Your task to perform on an android device: visit the assistant section in the google photos Image 0: 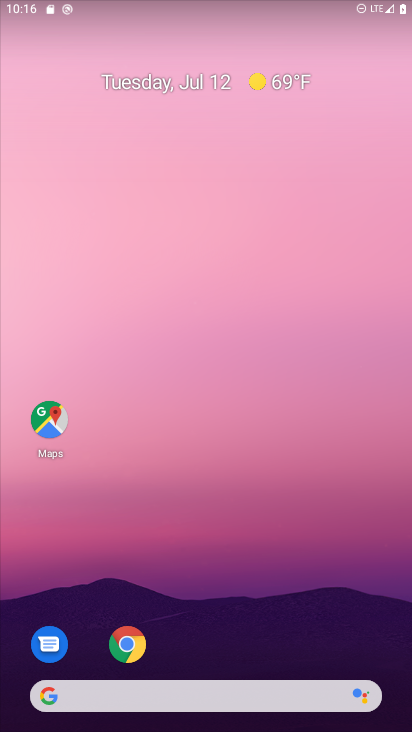
Step 0: press home button
Your task to perform on an android device: visit the assistant section in the google photos Image 1: 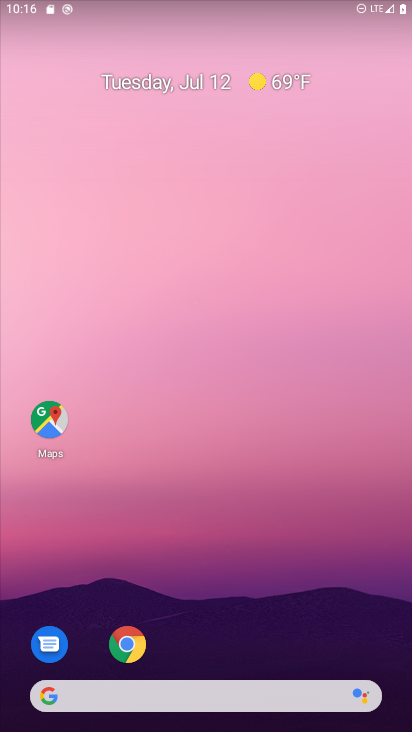
Step 1: drag from (198, 665) to (241, 34)
Your task to perform on an android device: visit the assistant section in the google photos Image 2: 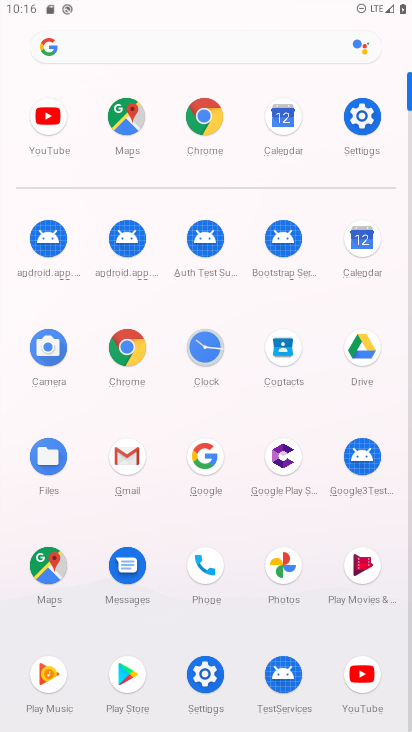
Step 2: click (279, 556)
Your task to perform on an android device: visit the assistant section in the google photos Image 3: 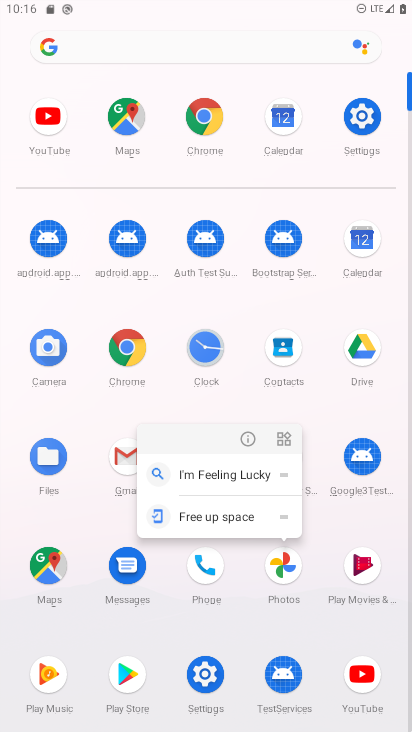
Step 3: click (282, 560)
Your task to perform on an android device: visit the assistant section in the google photos Image 4: 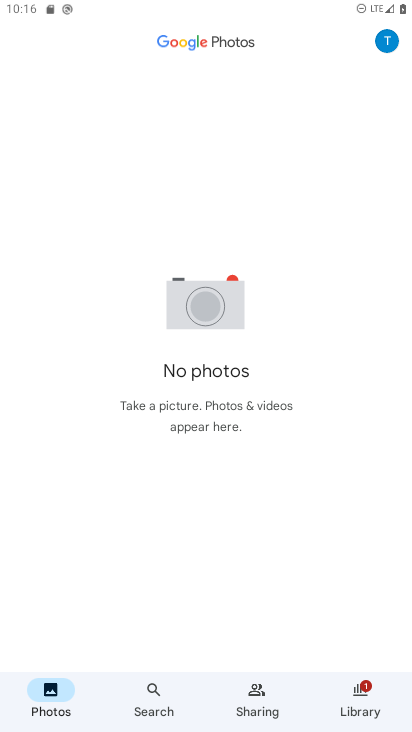
Step 4: click (145, 689)
Your task to perform on an android device: visit the assistant section in the google photos Image 5: 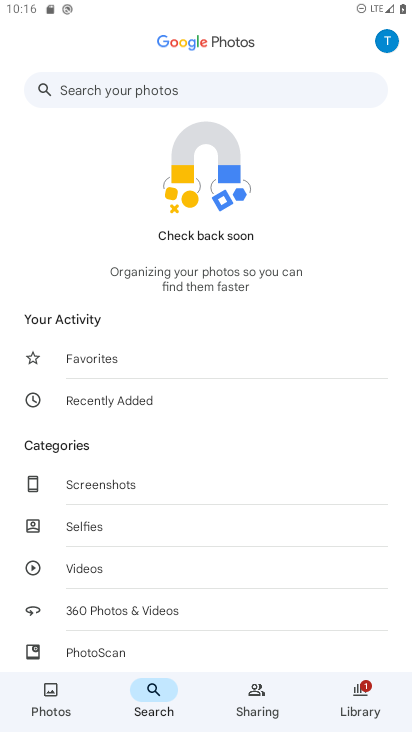
Step 5: click (126, 81)
Your task to perform on an android device: visit the assistant section in the google photos Image 6: 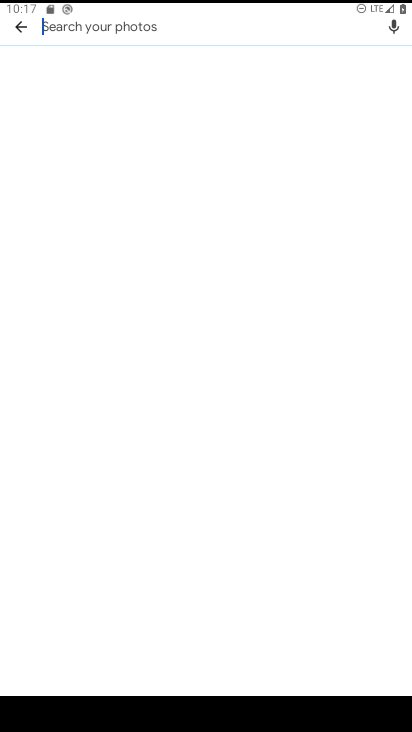
Step 6: type "assistant"
Your task to perform on an android device: visit the assistant section in the google photos Image 7: 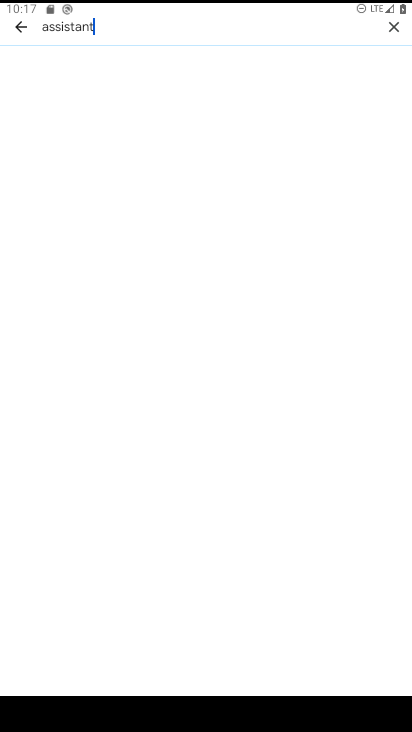
Step 7: type ""
Your task to perform on an android device: visit the assistant section in the google photos Image 8: 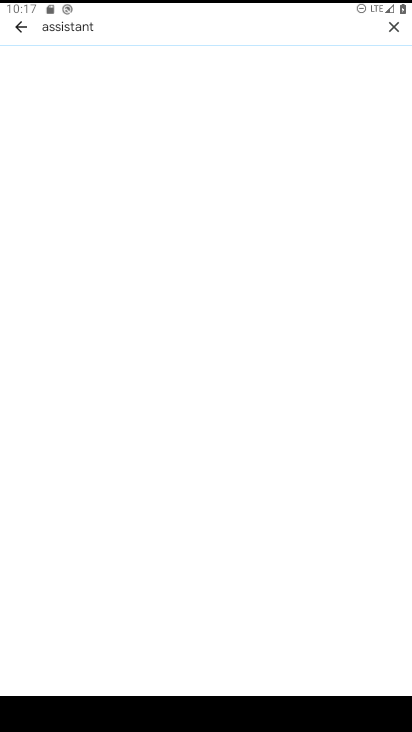
Step 8: task complete